Your task to perform on an android device: Go to display settings Image 0: 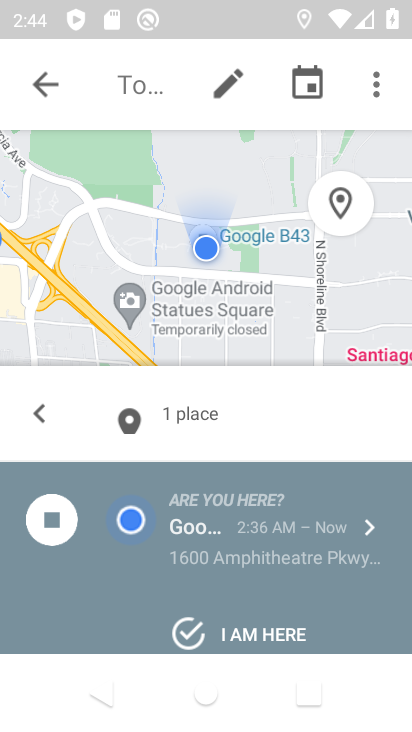
Step 0: press back button
Your task to perform on an android device: Go to display settings Image 1: 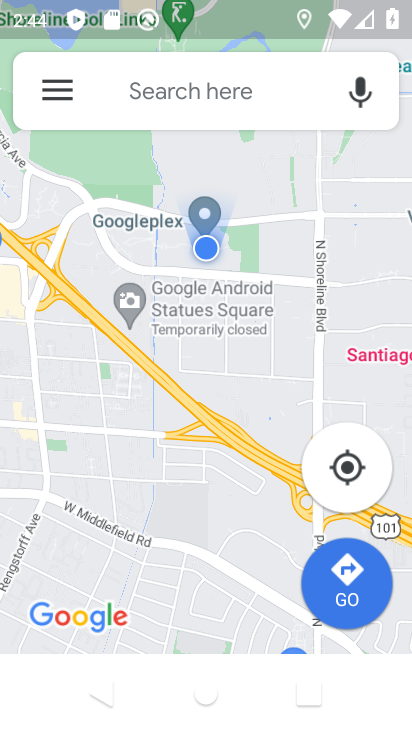
Step 1: press back button
Your task to perform on an android device: Go to display settings Image 2: 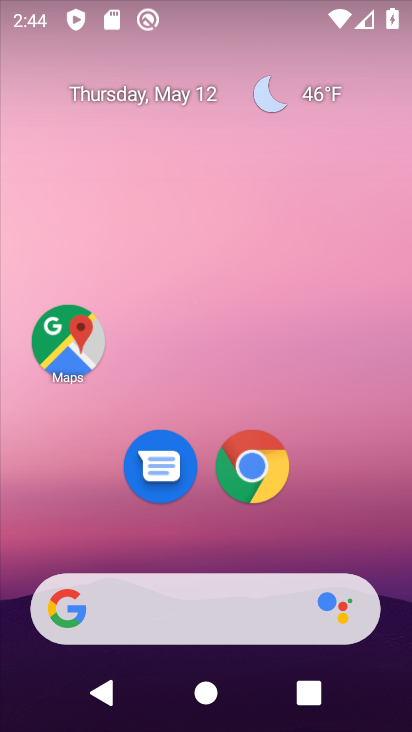
Step 2: press back button
Your task to perform on an android device: Go to display settings Image 3: 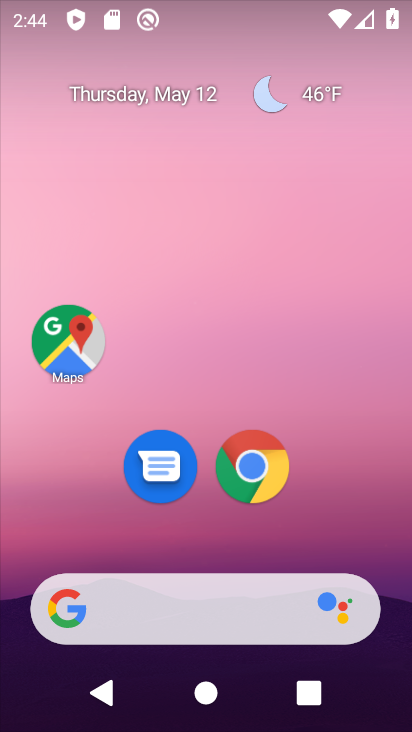
Step 3: drag from (339, 498) to (225, 58)
Your task to perform on an android device: Go to display settings Image 4: 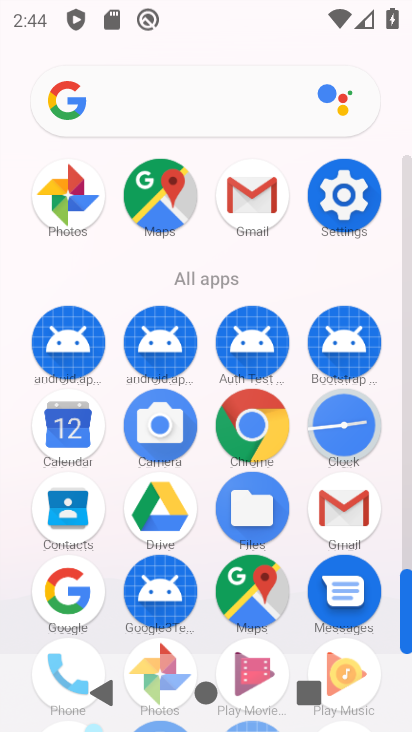
Step 4: drag from (14, 531) to (12, 210)
Your task to perform on an android device: Go to display settings Image 5: 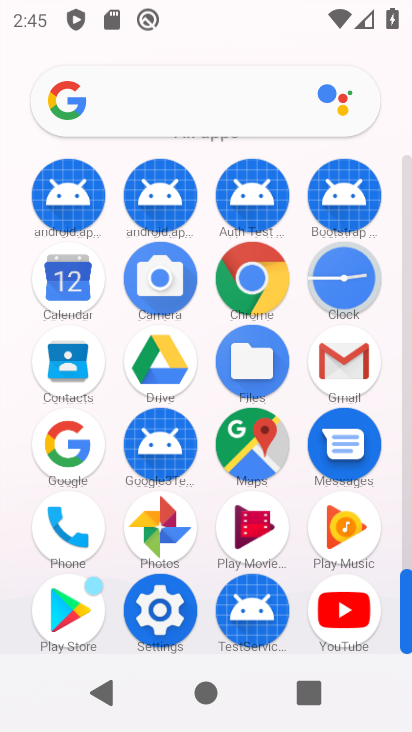
Step 5: click (158, 614)
Your task to perform on an android device: Go to display settings Image 6: 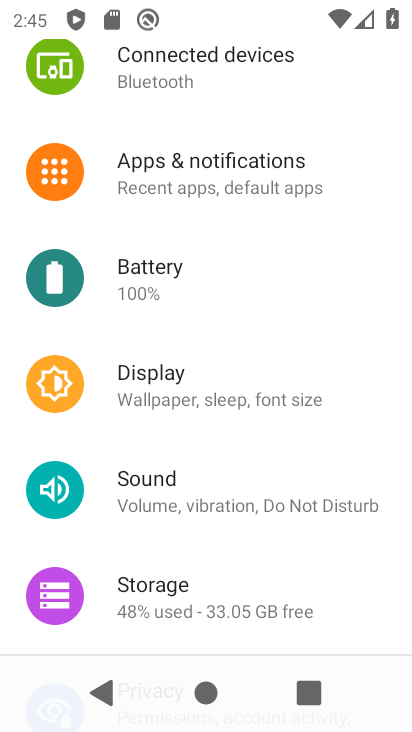
Step 6: click (191, 392)
Your task to perform on an android device: Go to display settings Image 7: 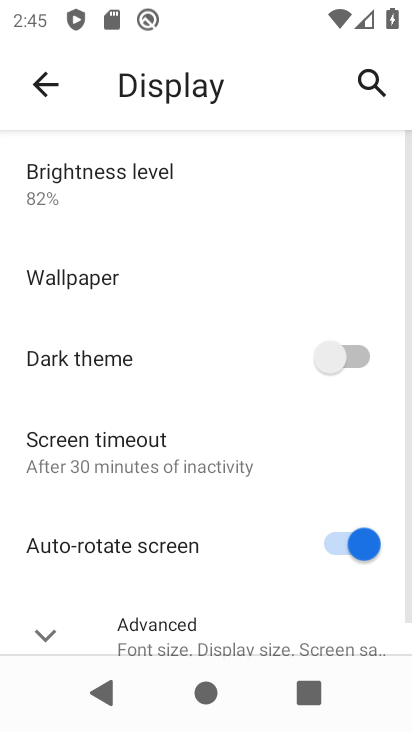
Step 7: drag from (101, 589) to (136, 203)
Your task to perform on an android device: Go to display settings Image 8: 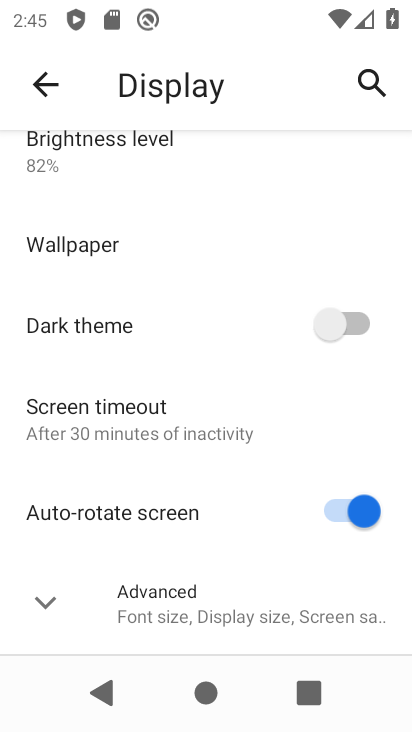
Step 8: click (39, 585)
Your task to perform on an android device: Go to display settings Image 9: 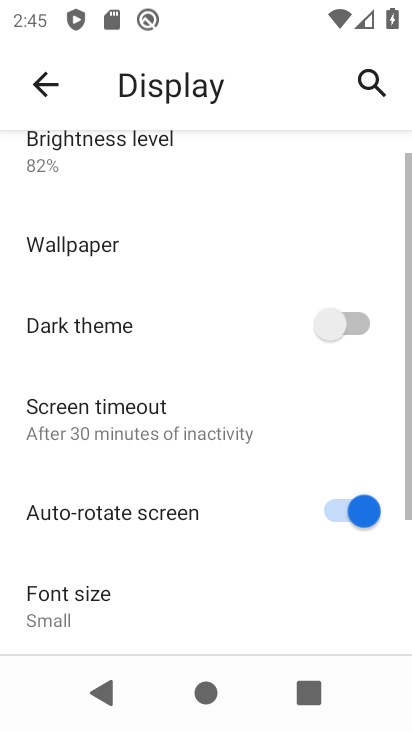
Step 9: task complete